Your task to perform on an android device: Open Google Maps Image 0: 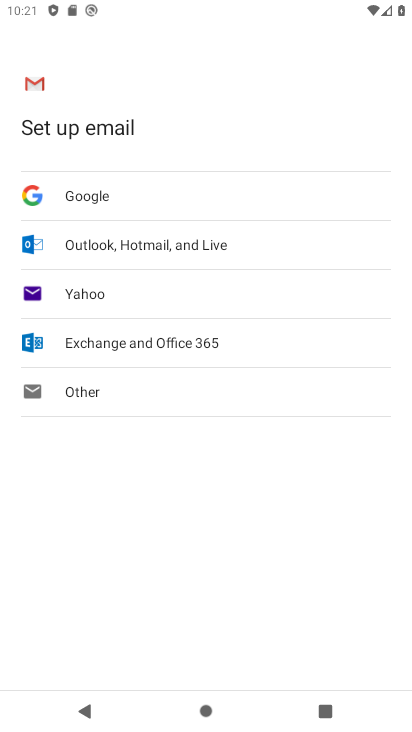
Step 0: press home button
Your task to perform on an android device: Open Google Maps Image 1: 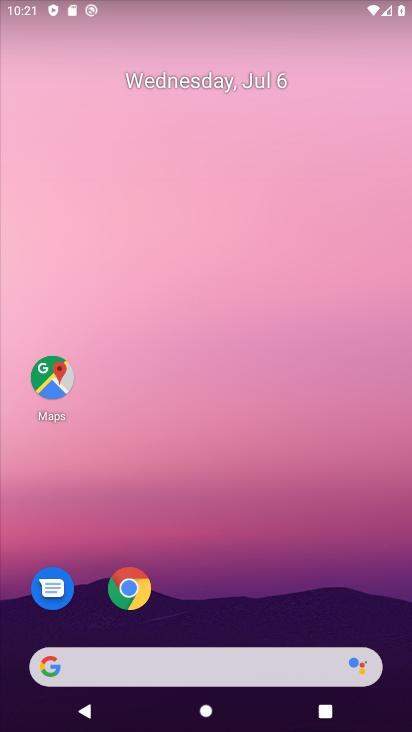
Step 1: click (57, 385)
Your task to perform on an android device: Open Google Maps Image 2: 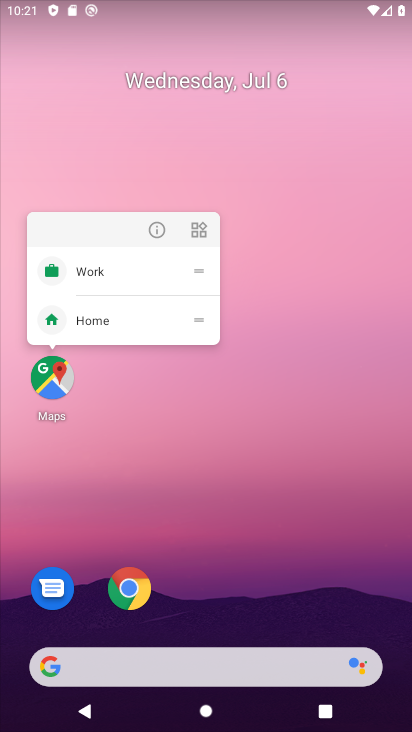
Step 2: click (50, 388)
Your task to perform on an android device: Open Google Maps Image 3: 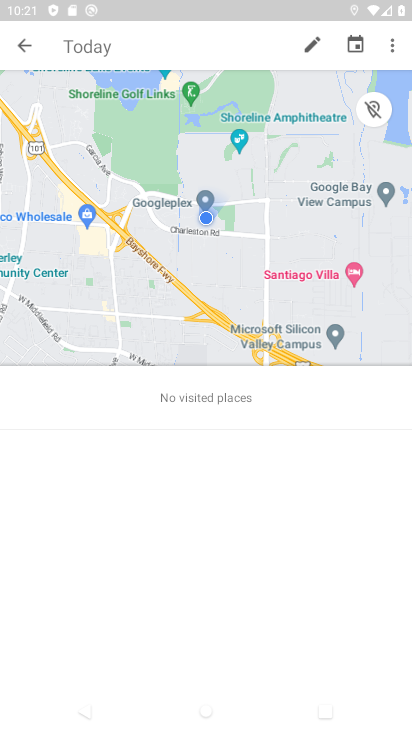
Step 3: click (25, 42)
Your task to perform on an android device: Open Google Maps Image 4: 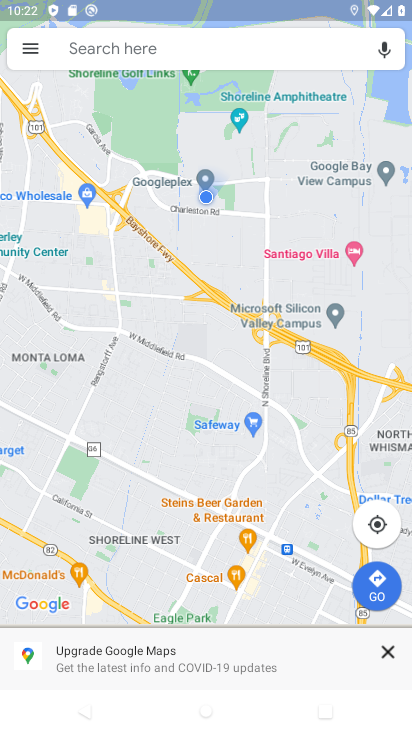
Step 4: task complete